Your task to perform on an android device: Open Yahoo.com Image 0: 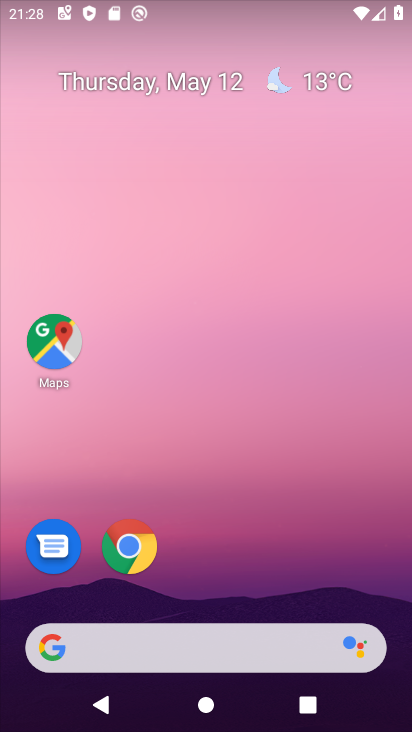
Step 0: click (148, 543)
Your task to perform on an android device: Open Yahoo.com Image 1: 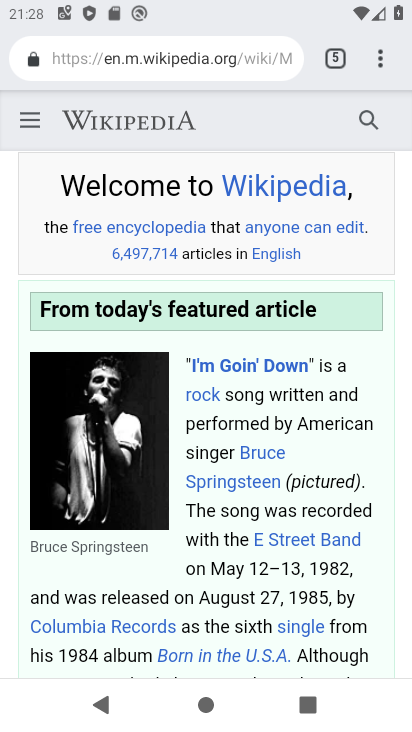
Step 1: click (263, 54)
Your task to perform on an android device: Open Yahoo.com Image 2: 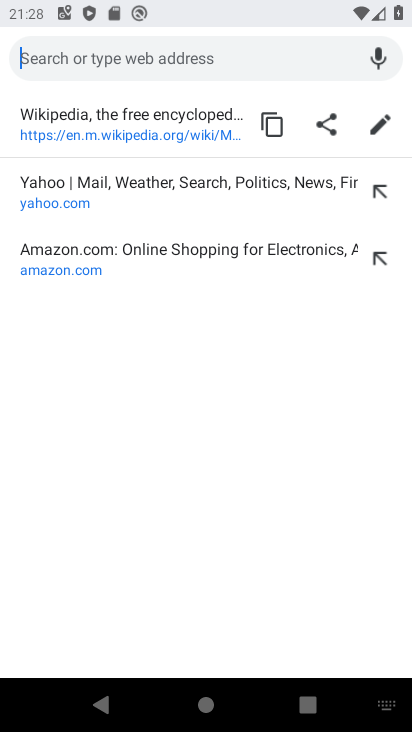
Step 2: type "Yahoo.com"
Your task to perform on an android device: Open Yahoo.com Image 3: 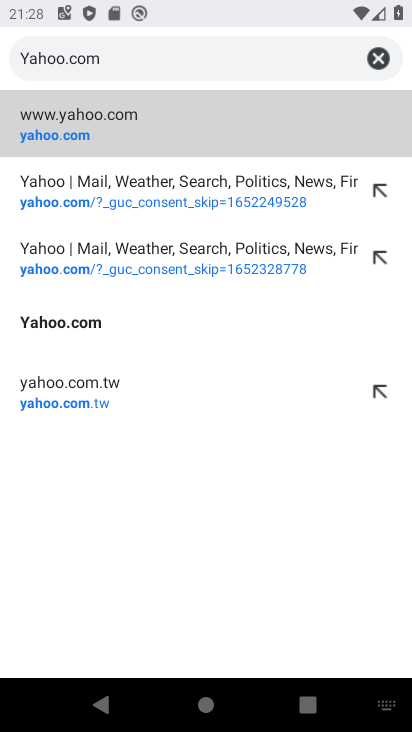
Step 3: click (54, 134)
Your task to perform on an android device: Open Yahoo.com Image 4: 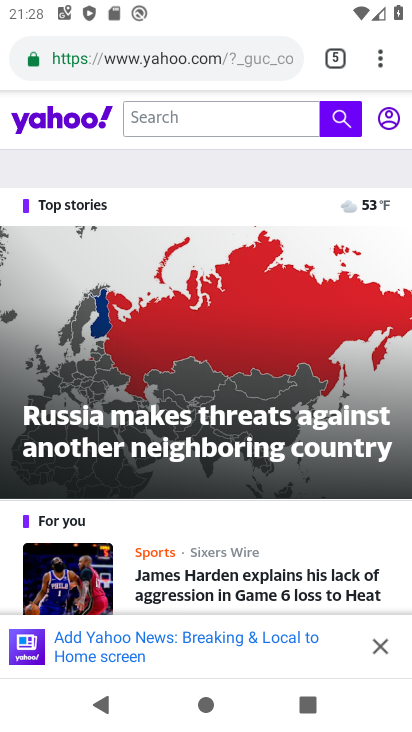
Step 4: task complete